Your task to perform on an android device: Do I have any events today? Image 0: 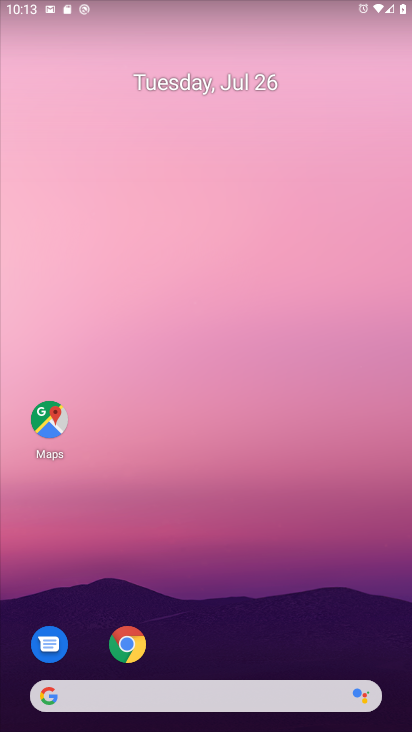
Step 0: drag from (192, 615) to (203, 132)
Your task to perform on an android device: Do I have any events today? Image 1: 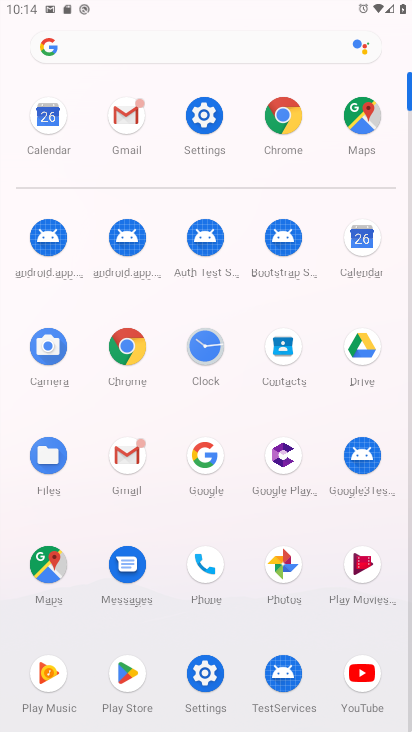
Step 1: click (350, 246)
Your task to perform on an android device: Do I have any events today? Image 2: 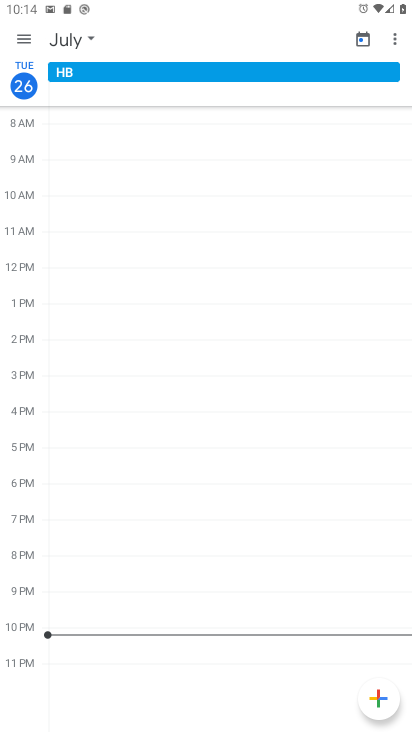
Step 2: click (21, 37)
Your task to perform on an android device: Do I have any events today? Image 3: 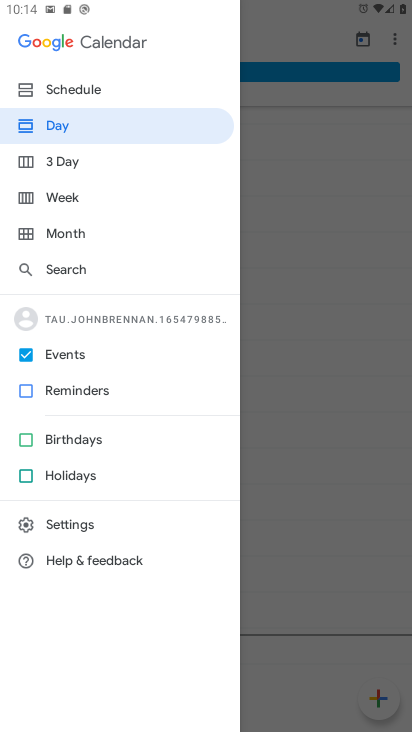
Step 3: task complete